Your task to perform on an android device: Search for vegetarian restaurants on Maps Image 0: 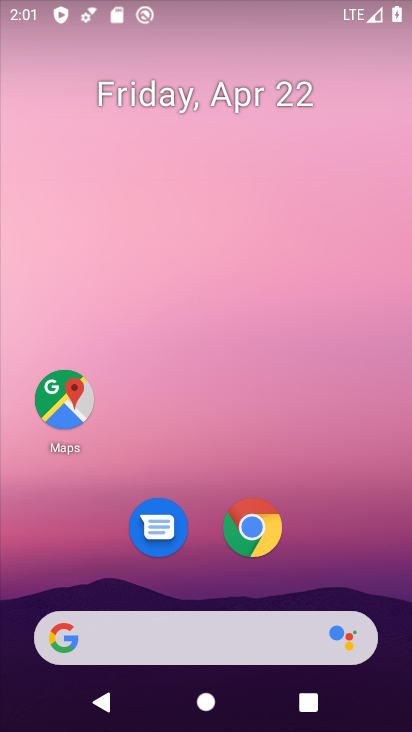
Step 0: click (68, 397)
Your task to perform on an android device: Search for vegetarian restaurants on Maps Image 1: 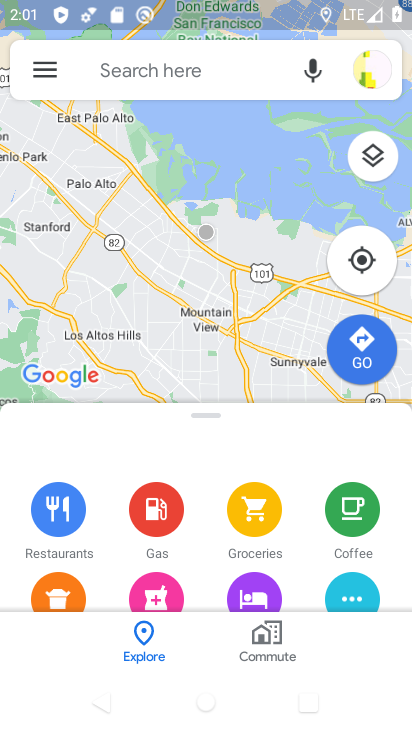
Step 1: click (130, 74)
Your task to perform on an android device: Search for vegetarian restaurants on Maps Image 2: 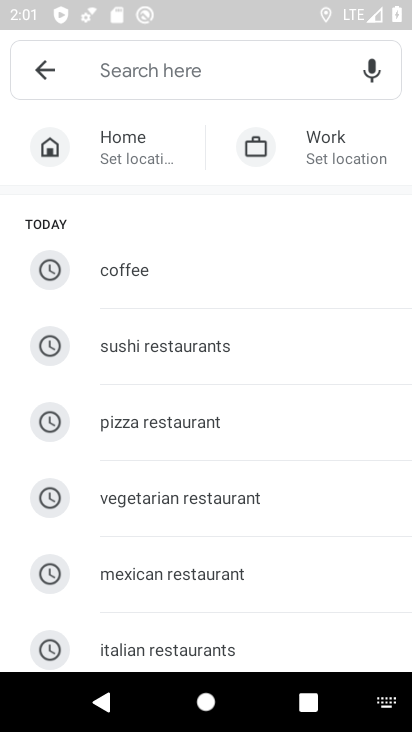
Step 2: click (173, 500)
Your task to perform on an android device: Search for vegetarian restaurants on Maps Image 3: 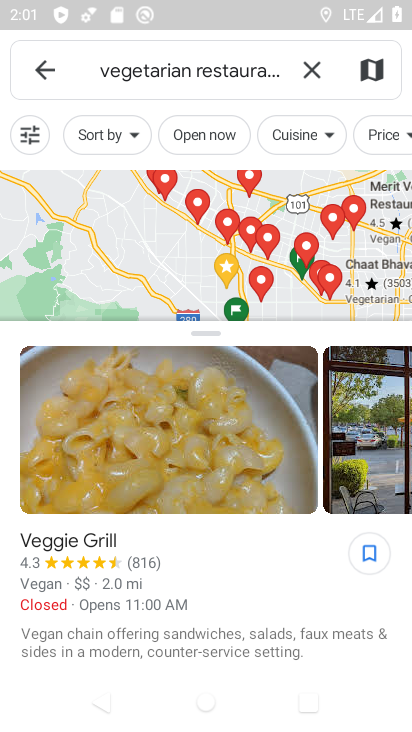
Step 3: task complete